Your task to perform on an android device: turn on sleep mode Image 0: 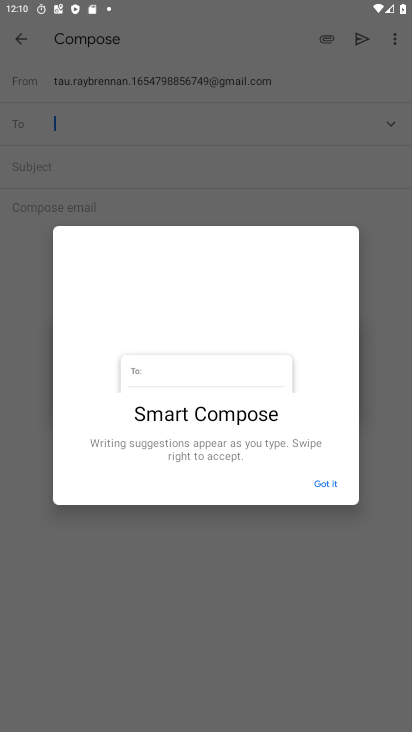
Step 0: press home button
Your task to perform on an android device: turn on sleep mode Image 1: 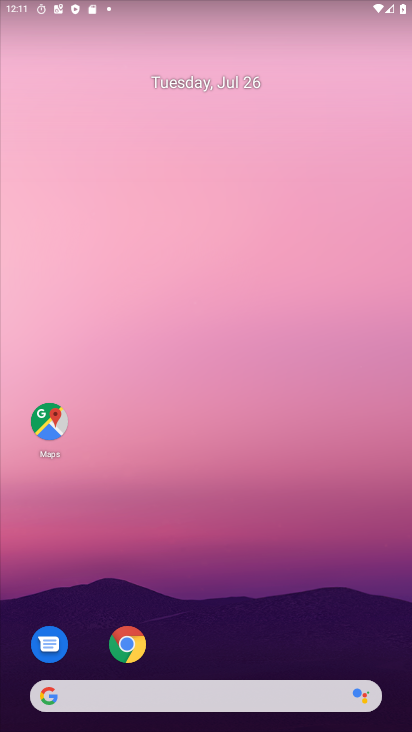
Step 1: drag from (363, 444) to (317, 0)
Your task to perform on an android device: turn on sleep mode Image 2: 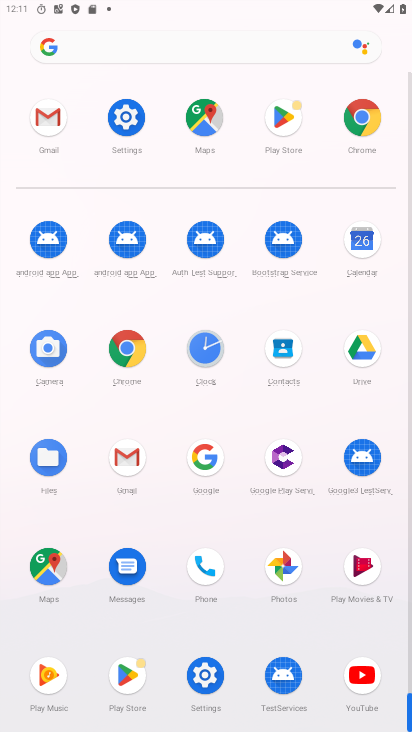
Step 2: click (133, 121)
Your task to perform on an android device: turn on sleep mode Image 3: 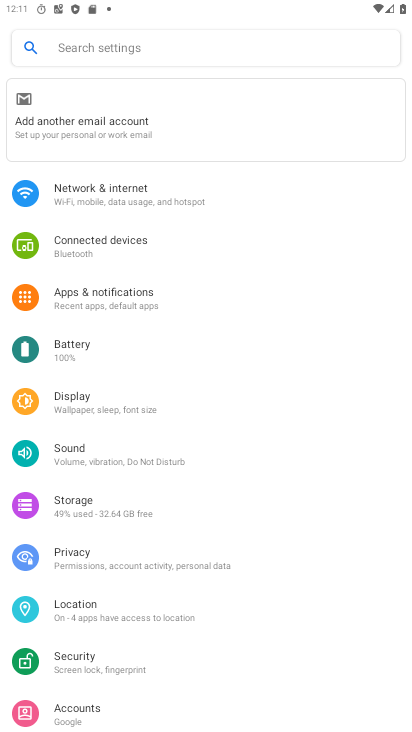
Step 3: click (66, 410)
Your task to perform on an android device: turn on sleep mode Image 4: 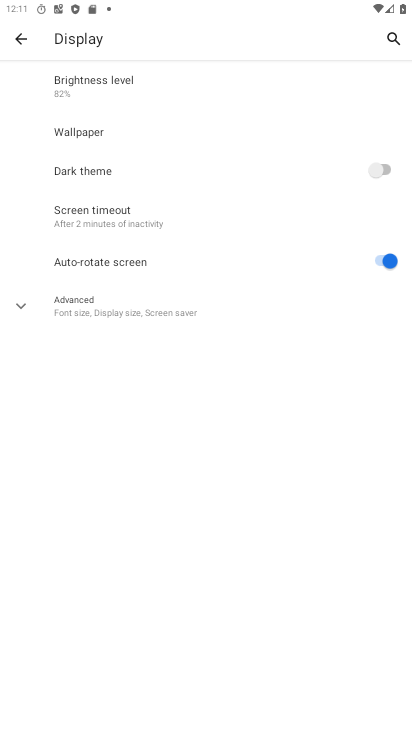
Step 4: click (88, 210)
Your task to perform on an android device: turn on sleep mode Image 5: 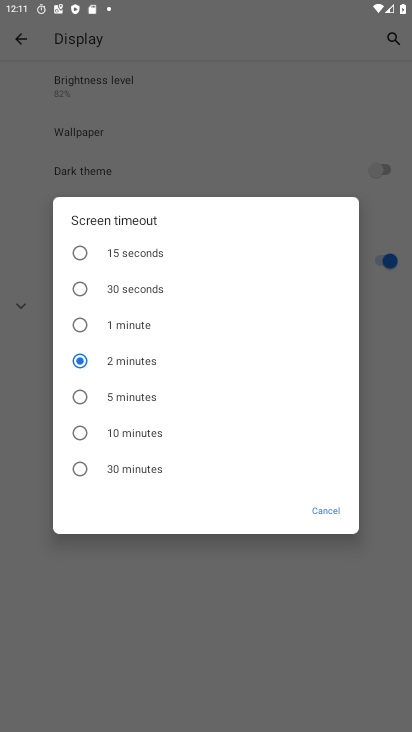
Step 5: task complete